Your task to perform on an android device: delete the emails in spam in the gmail app Image 0: 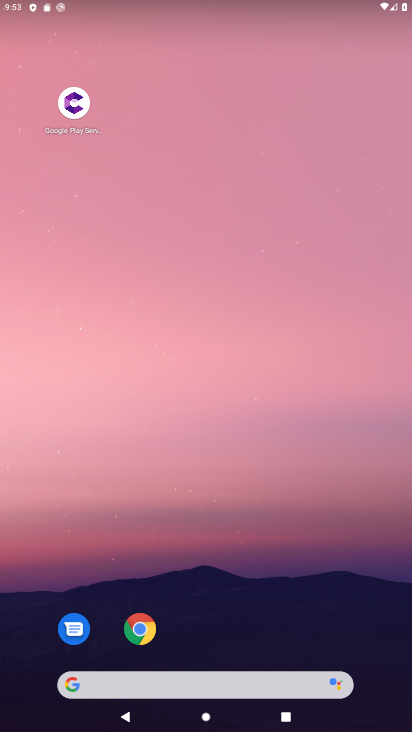
Step 0: press home button
Your task to perform on an android device: delete the emails in spam in the gmail app Image 1: 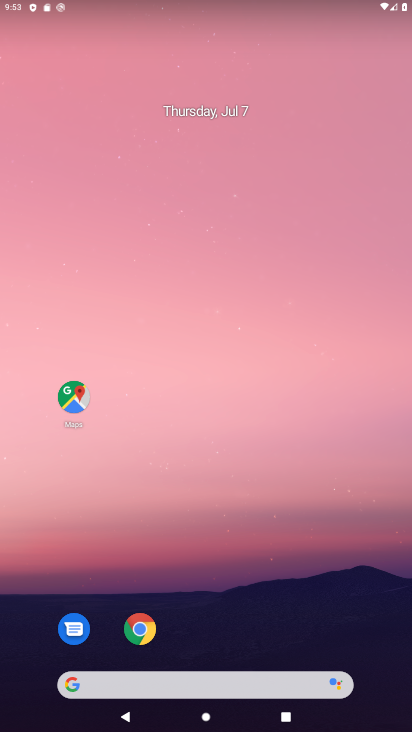
Step 1: drag from (327, 605) to (266, 51)
Your task to perform on an android device: delete the emails in spam in the gmail app Image 2: 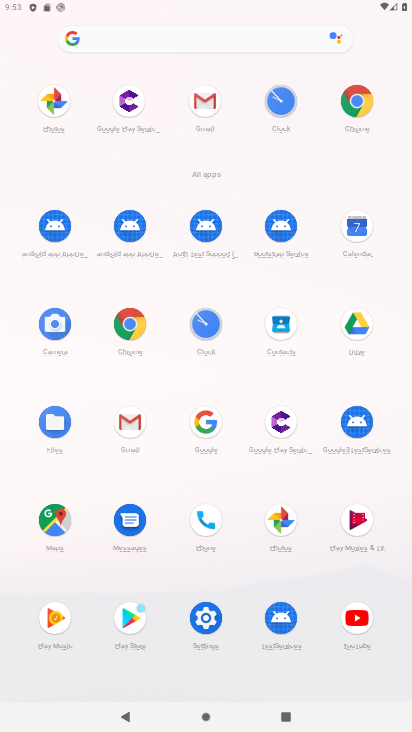
Step 2: click (202, 94)
Your task to perform on an android device: delete the emails in spam in the gmail app Image 3: 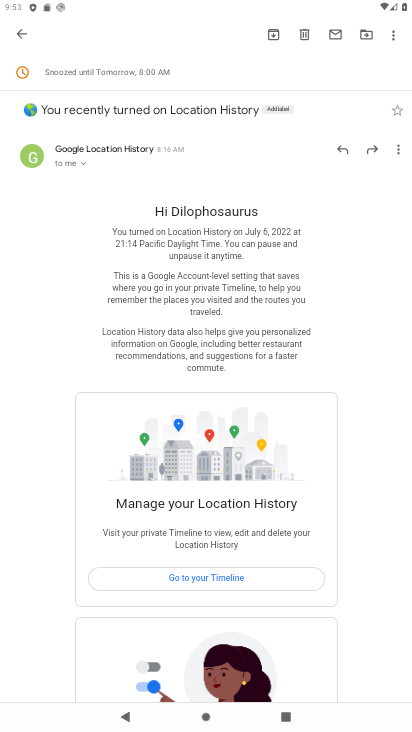
Step 3: press back button
Your task to perform on an android device: delete the emails in spam in the gmail app Image 4: 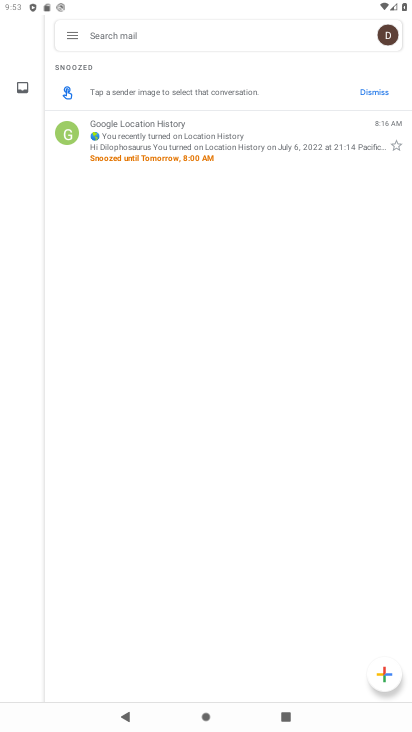
Step 4: click (69, 35)
Your task to perform on an android device: delete the emails in spam in the gmail app Image 5: 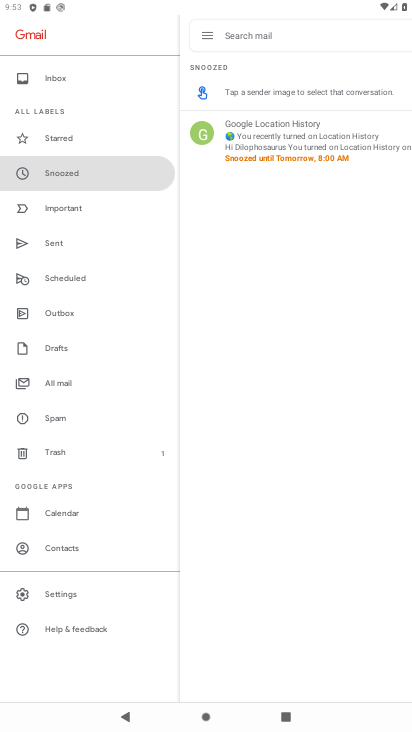
Step 5: click (49, 418)
Your task to perform on an android device: delete the emails in spam in the gmail app Image 6: 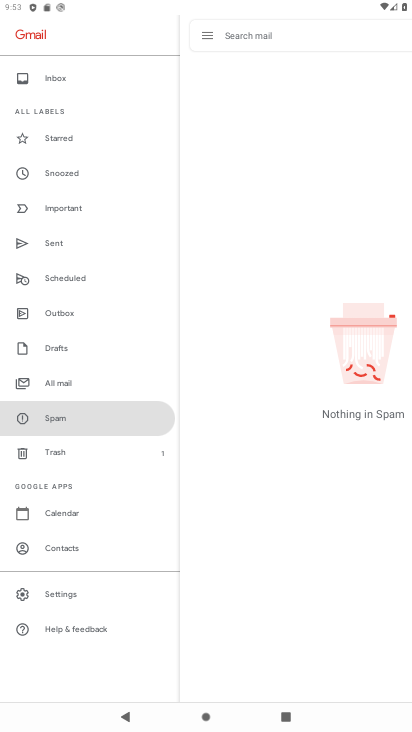
Step 6: task complete